Your task to perform on an android device: Open battery settings Image 0: 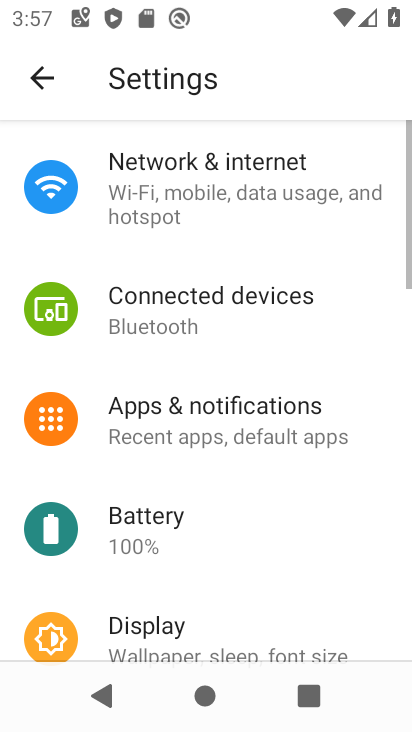
Step 0: drag from (164, 616) to (192, 253)
Your task to perform on an android device: Open battery settings Image 1: 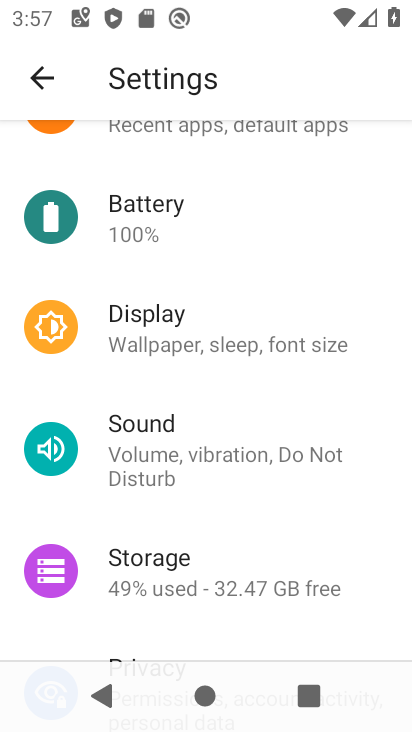
Step 1: click (177, 198)
Your task to perform on an android device: Open battery settings Image 2: 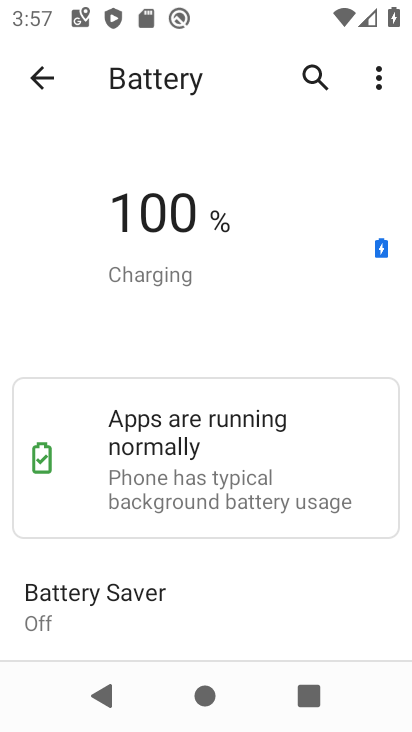
Step 2: task complete